Your task to perform on an android device: Open notification settings Image 0: 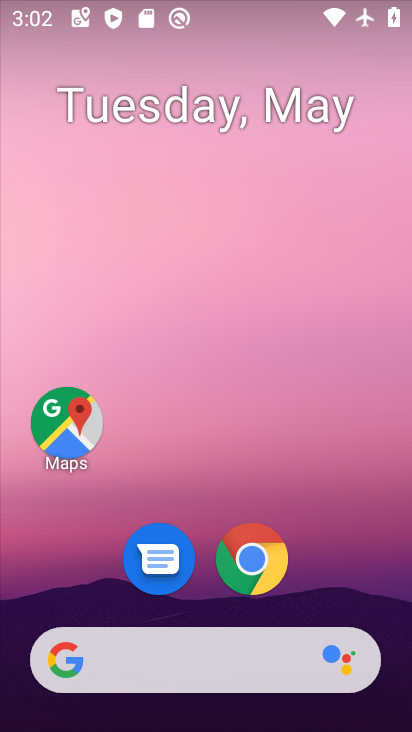
Step 0: drag from (189, 655) to (341, 156)
Your task to perform on an android device: Open notification settings Image 1: 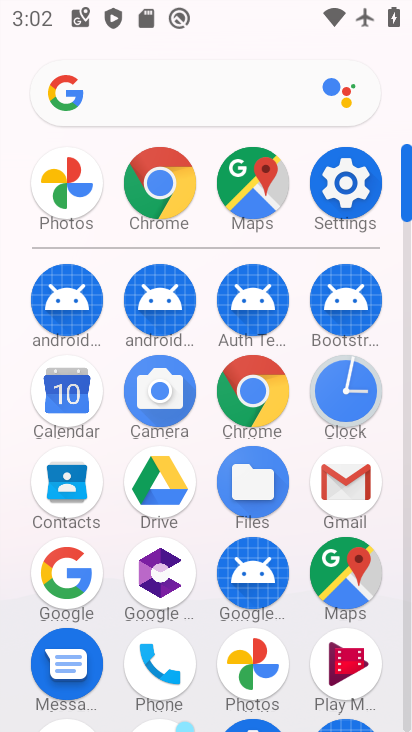
Step 1: click (343, 198)
Your task to perform on an android device: Open notification settings Image 2: 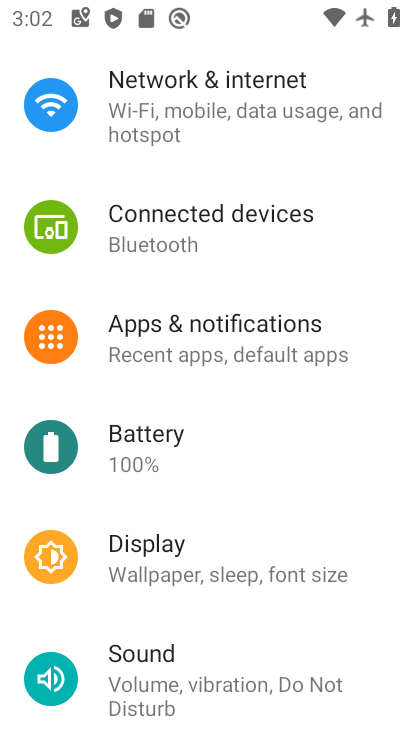
Step 2: click (225, 332)
Your task to perform on an android device: Open notification settings Image 3: 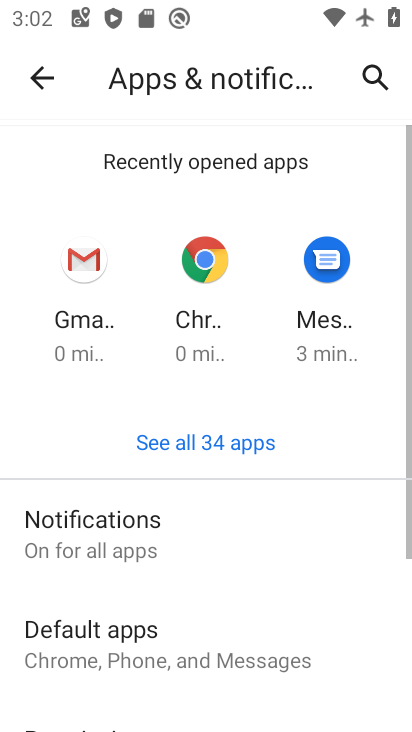
Step 3: click (110, 548)
Your task to perform on an android device: Open notification settings Image 4: 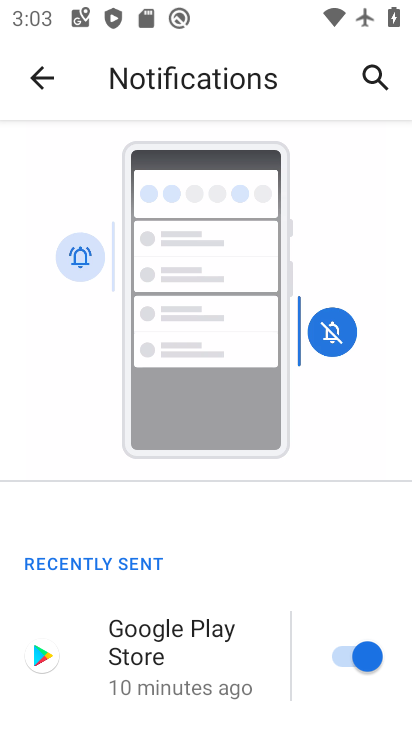
Step 4: task complete